Your task to perform on an android device: Clear the shopping cart on amazon.com. Image 0: 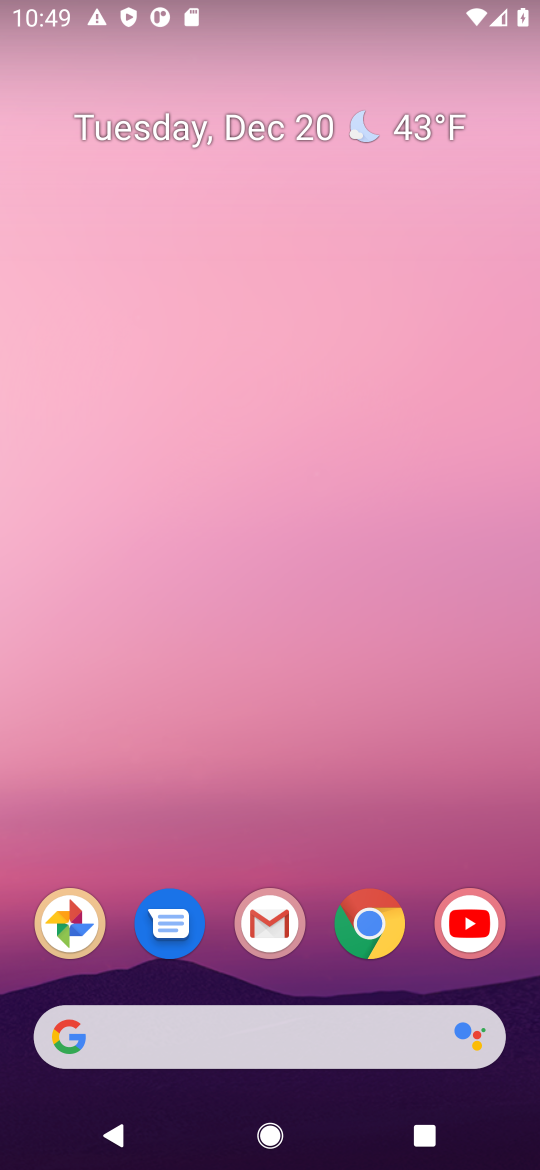
Step 0: click (344, 926)
Your task to perform on an android device: Clear the shopping cart on amazon.com. Image 1: 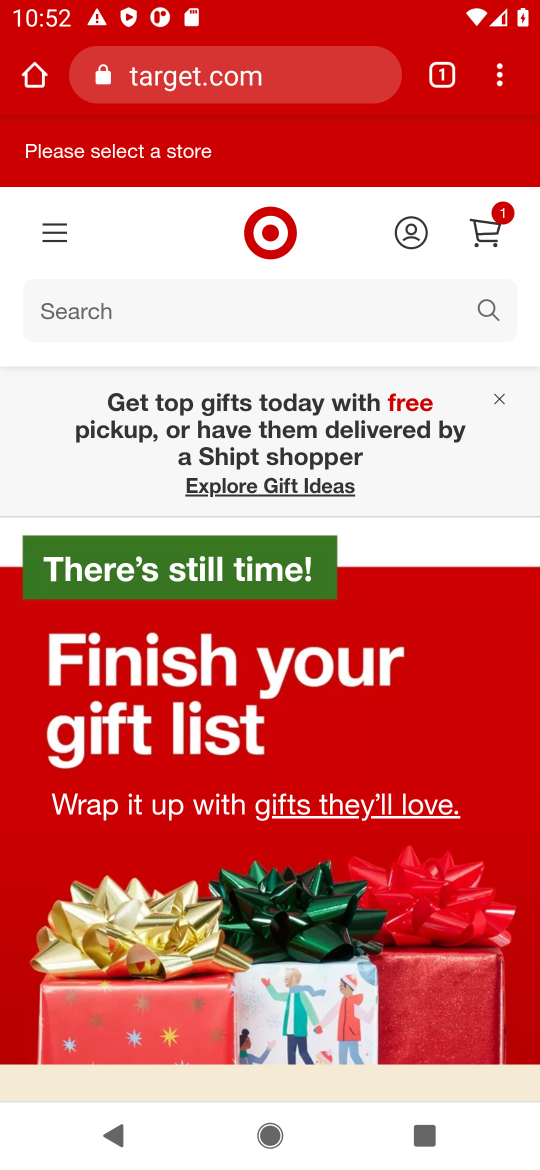
Step 1: click (331, 90)
Your task to perform on an android device: Clear the shopping cart on amazon.com. Image 2: 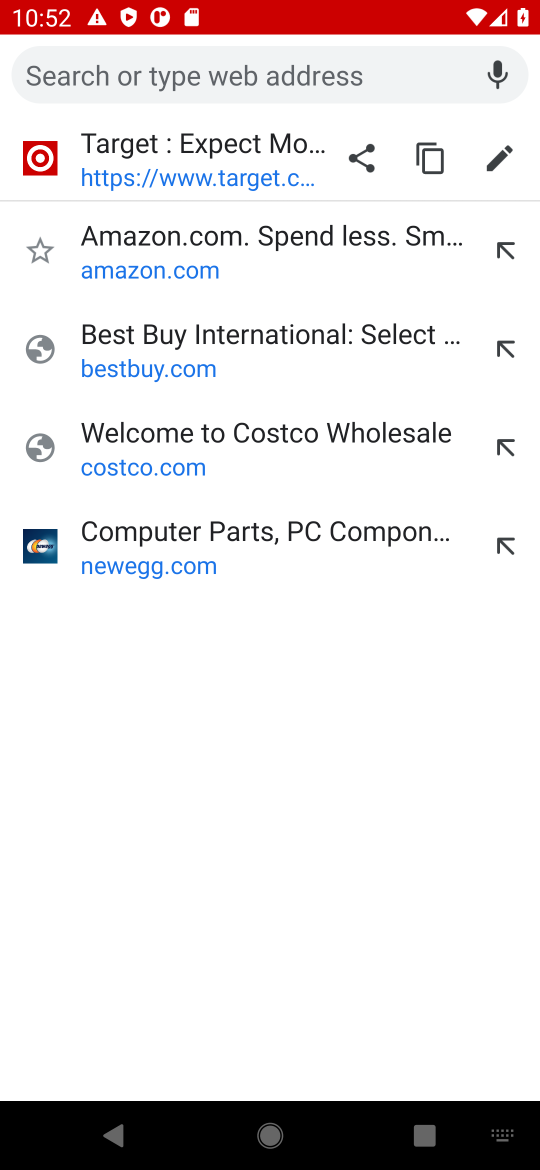
Step 2: type "amazon"
Your task to perform on an android device: Clear the shopping cart on amazon.com. Image 3: 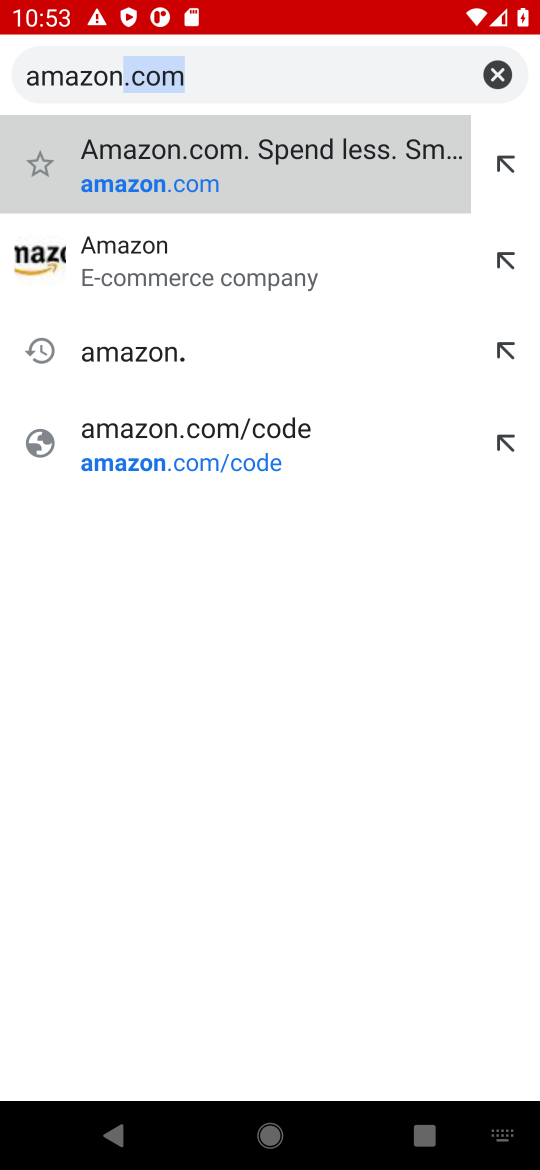
Step 3: click (220, 270)
Your task to perform on an android device: Clear the shopping cart on amazon.com. Image 4: 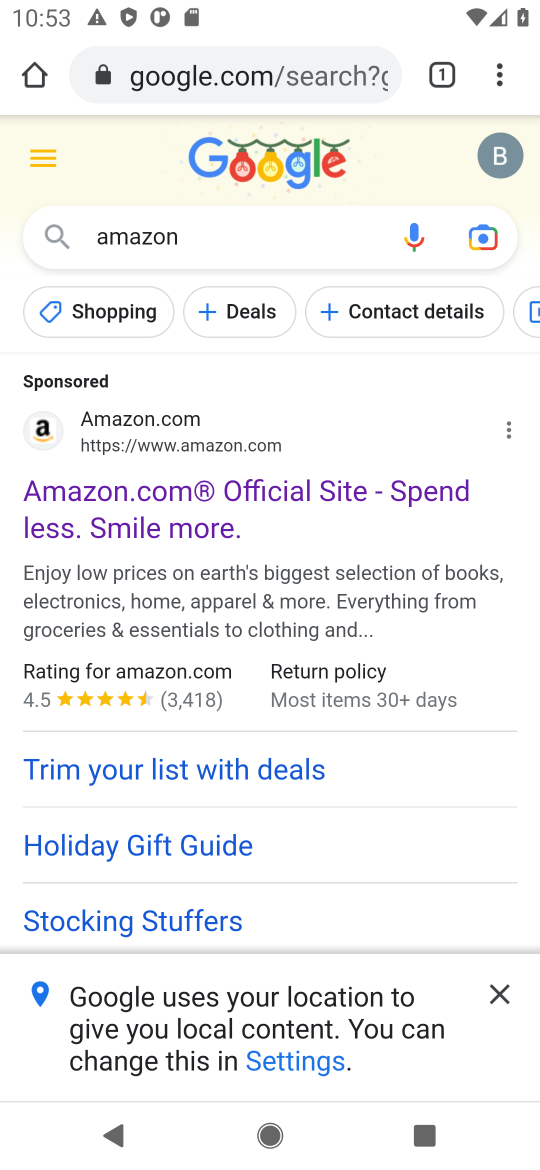
Step 4: click (161, 493)
Your task to perform on an android device: Clear the shopping cart on amazon.com. Image 5: 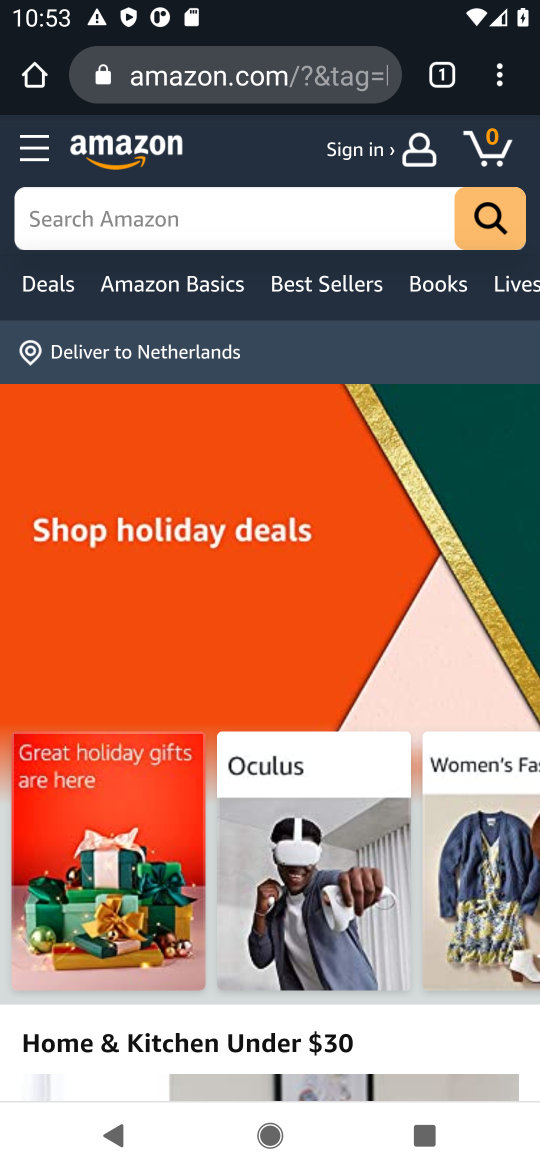
Step 5: task complete